Your task to perform on an android device: change notifications settings Image 0: 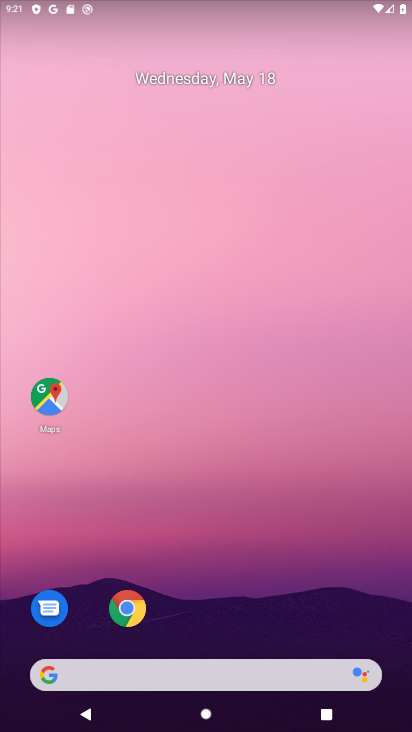
Step 0: drag from (228, 614) to (332, 48)
Your task to perform on an android device: change notifications settings Image 1: 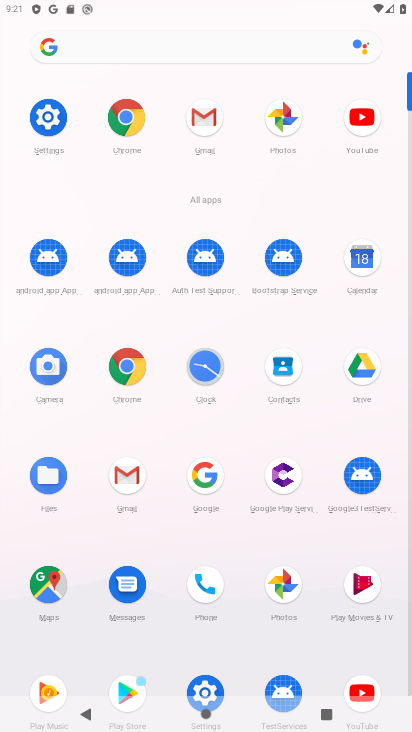
Step 1: click (54, 144)
Your task to perform on an android device: change notifications settings Image 2: 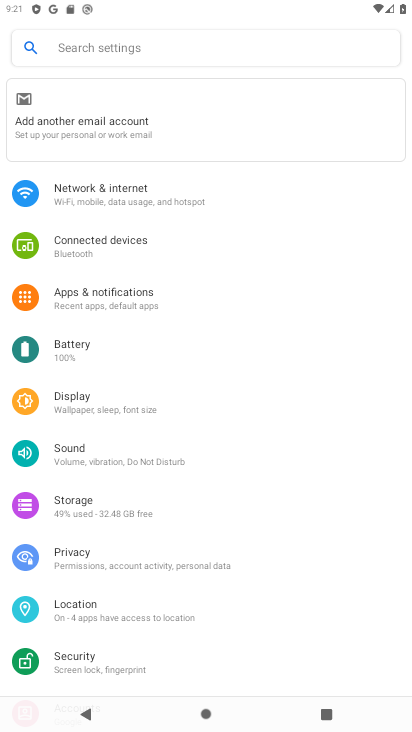
Step 2: click (145, 301)
Your task to perform on an android device: change notifications settings Image 3: 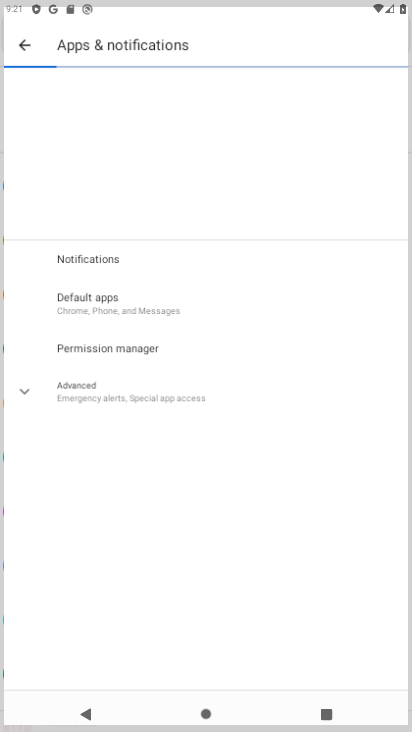
Step 3: task complete